Your task to perform on an android device: Go to settings Image 0: 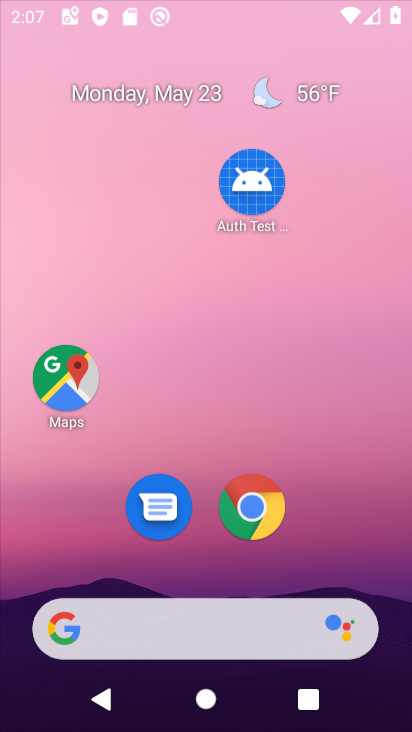
Step 0: press back button
Your task to perform on an android device: Go to settings Image 1: 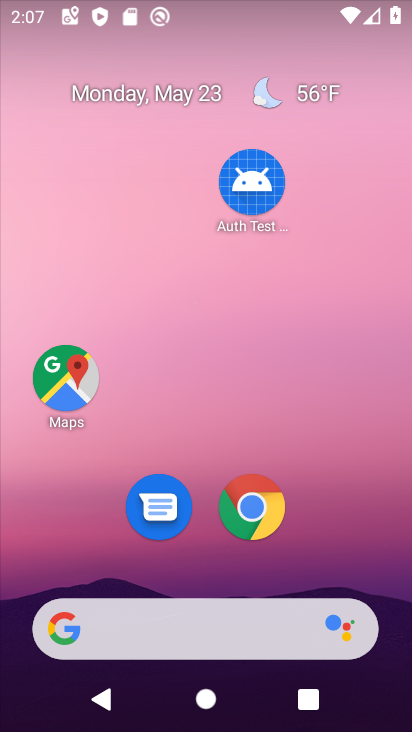
Step 1: drag from (258, 601) to (225, 140)
Your task to perform on an android device: Go to settings Image 2: 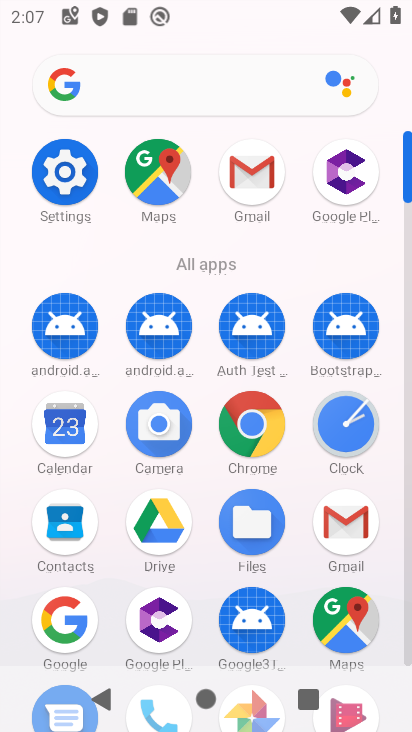
Step 2: drag from (240, 631) to (239, 246)
Your task to perform on an android device: Go to settings Image 3: 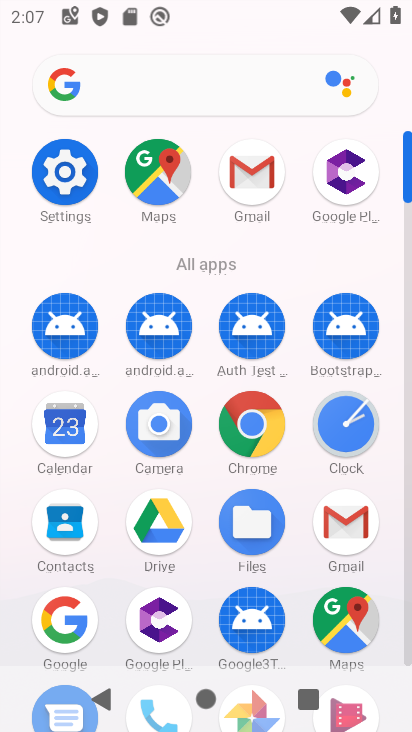
Step 3: drag from (262, 613) to (183, 131)
Your task to perform on an android device: Go to settings Image 4: 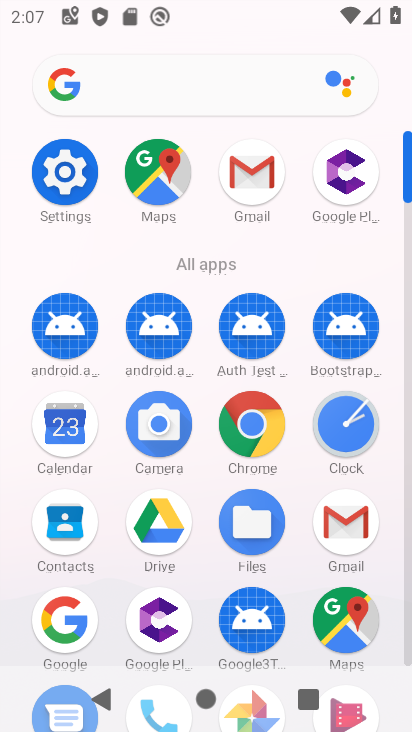
Step 4: drag from (167, 557) to (129, 151)
Your task to perform on an android device: Go to settings Image 5: 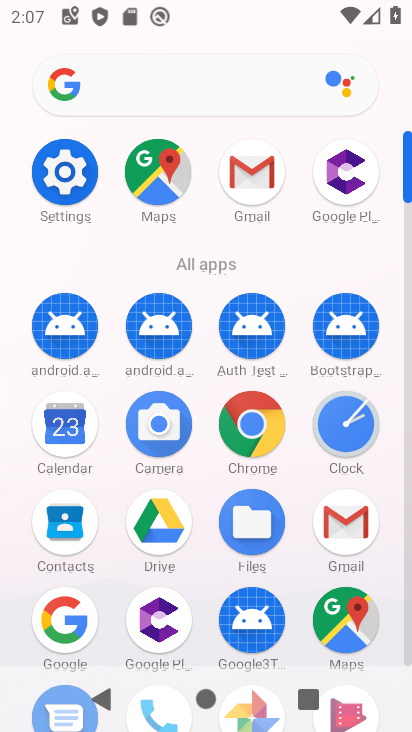
Step 5: click (75, 178)
Your task to perform on an android device: Go to settings Image 6: 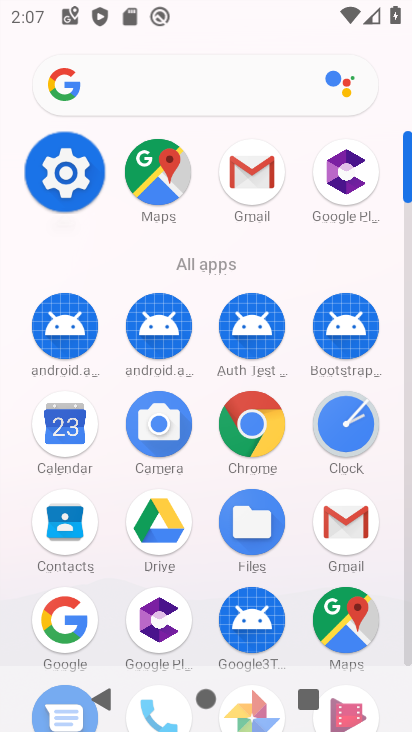
Step 6: click (76, 177)
Your task to perform on an android device: Go to settings Image 7: 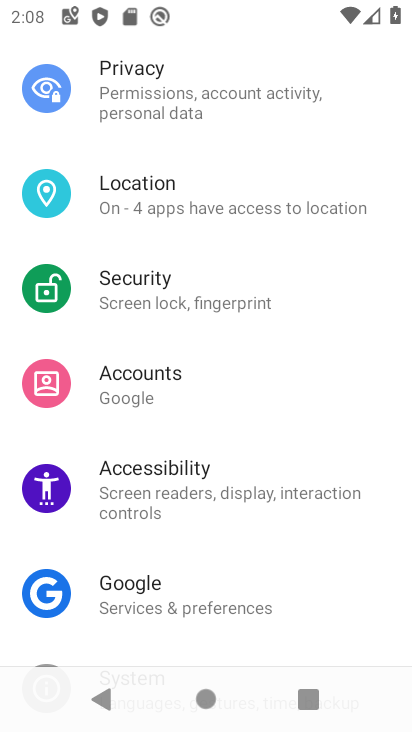
Step 7: drag from (177, 474) to (180, 65)
Your task to perform on an android device: Go to settings Image 8: 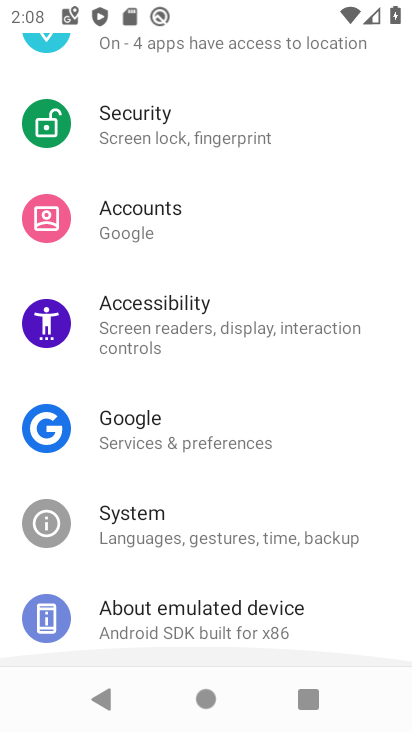
Step 8: drag from (150, 470) to (149, 166)
Your task to perform on an android device: Go to settings Image 9: 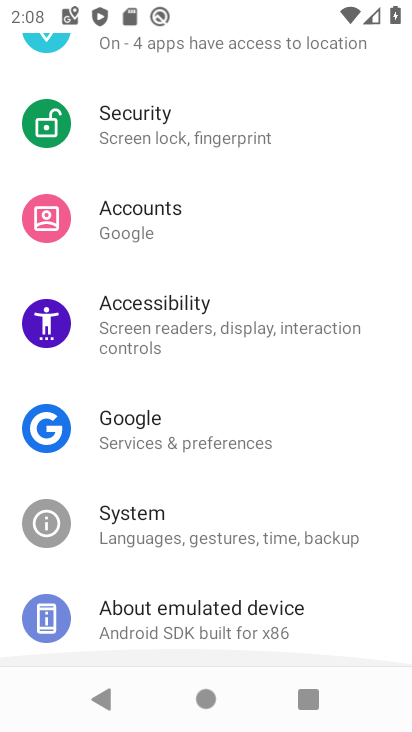
Step 9: drag from (179, 376) to (184, 125)
Your task to perform on an android device: Go to settings Image 10: 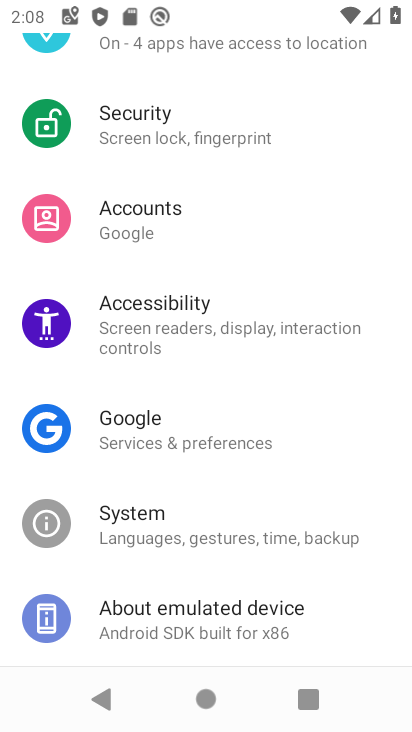
Step 10: drag from (215, 466) to (207, 134)
Your task to perform on an android device: Go to settings Image 11: 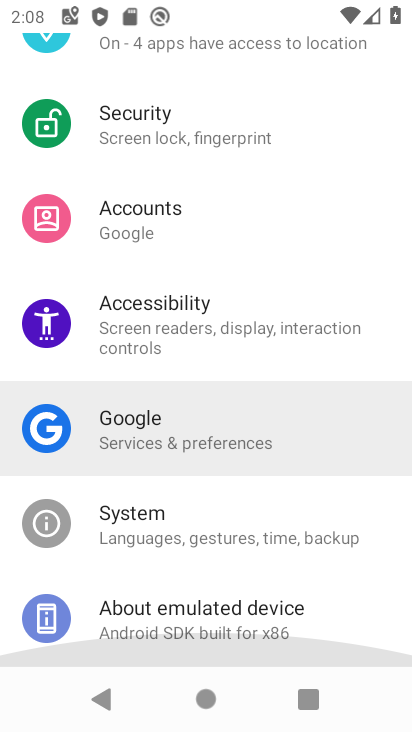
Step 11: drag from (143, 325) to (140, 135)
Your task to perform on an android device: Go to settings Image 12: 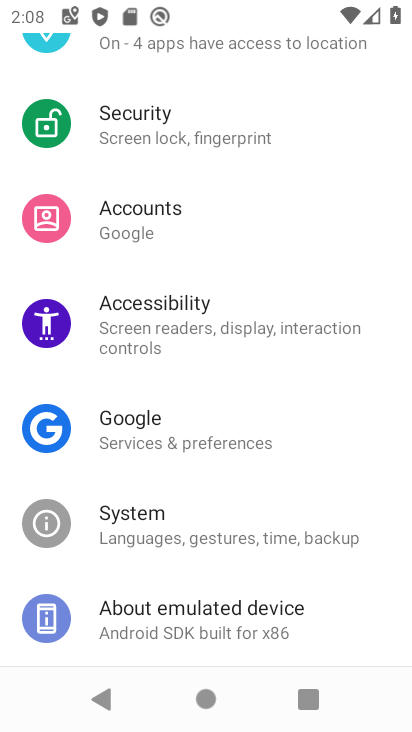
Step 12: drag from (109, 504) to (109, 235)
Your task to perform on an android device: Go to settings Image 13: 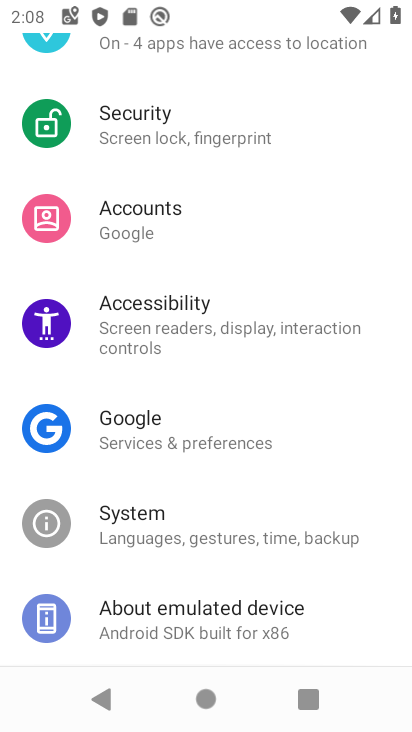
Step 13: drag from (131, 510) to (138, 242)
Your task to perform on an android device: Go to settings Image 14: 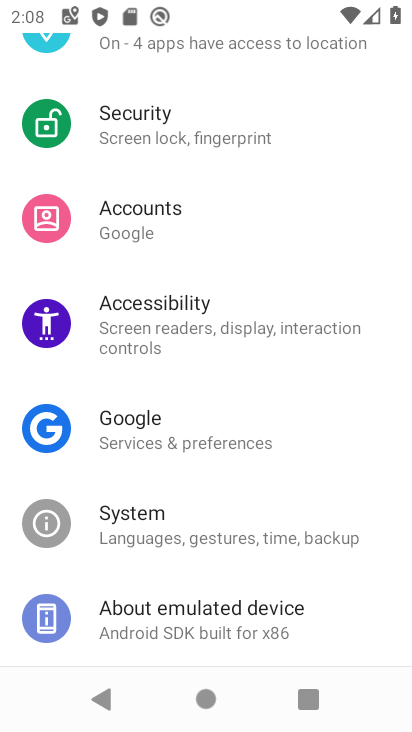
Step 14: drag from (196, 463) to (145, 570)
Your task to perform on an android device: Go to settings Image 15: 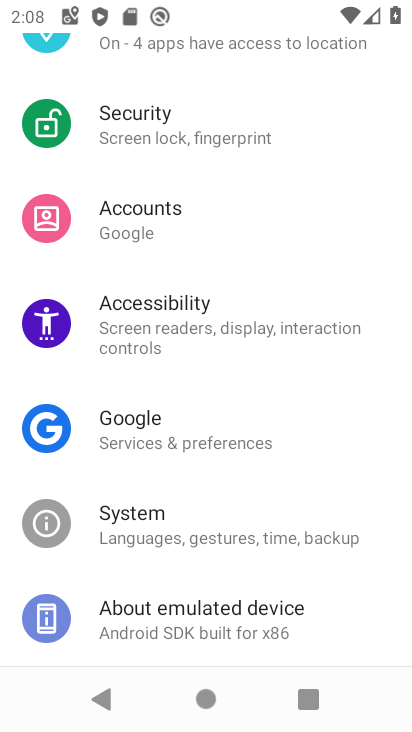
Step 15: click (150, 674)
Your task to perform on an android device: Go to settings Image 16: 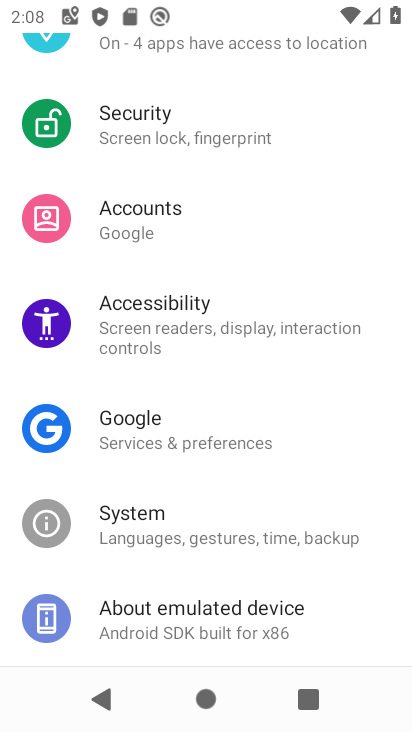
Step 16: task complete